Your task to perform on an android device: Show me recent news Image 0: 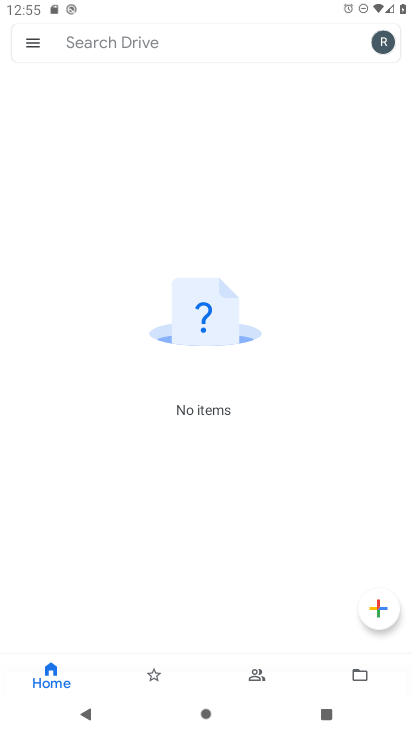
Step 0: press home button
Your task to perform on an android device: Show me recent news Image 1: 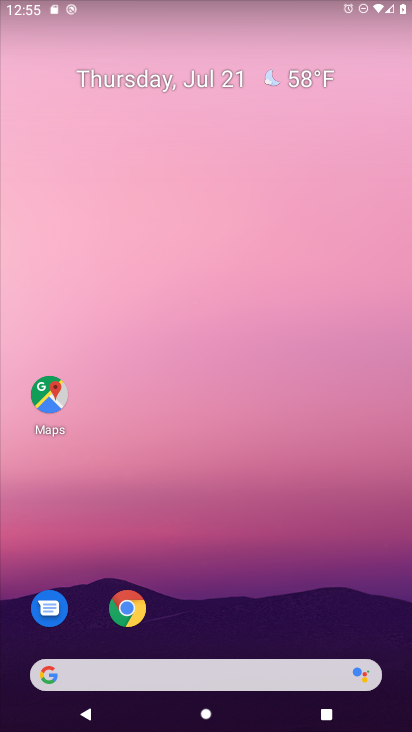
Step 1: click (43, 671)
Your task to perform on an android device: Show me recent news Image 2: 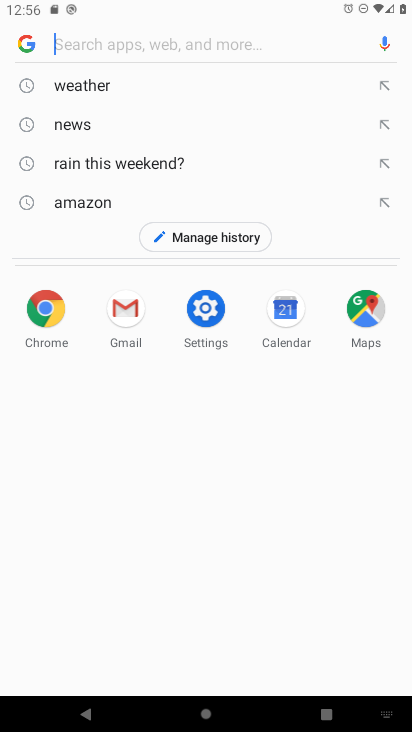
Step 2: type "recent news"
Your task to perform on an android device: Show me recent news Image 3: 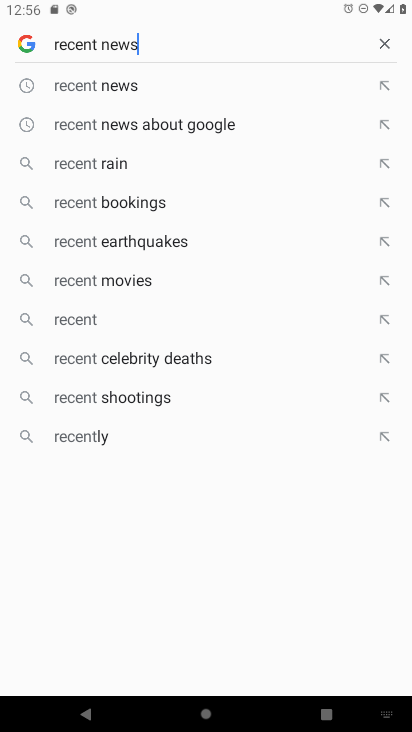
Step 3: press enter
Your task to perform on an android device: Show me recent news Image 4: 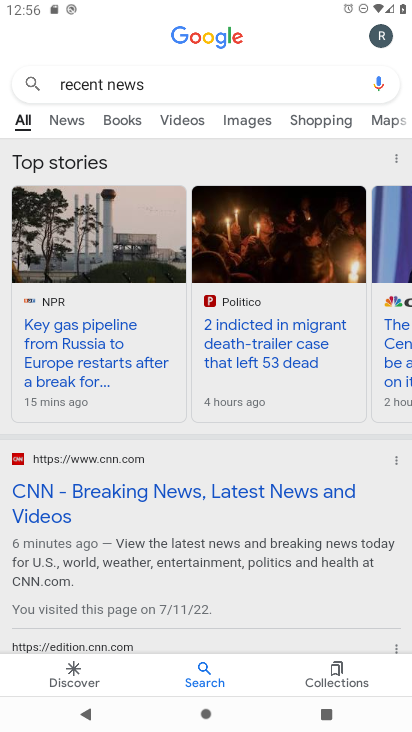
Step 4: task complete